Your task to perform on an android device: Is it going to rain tomorrow? Image 0: 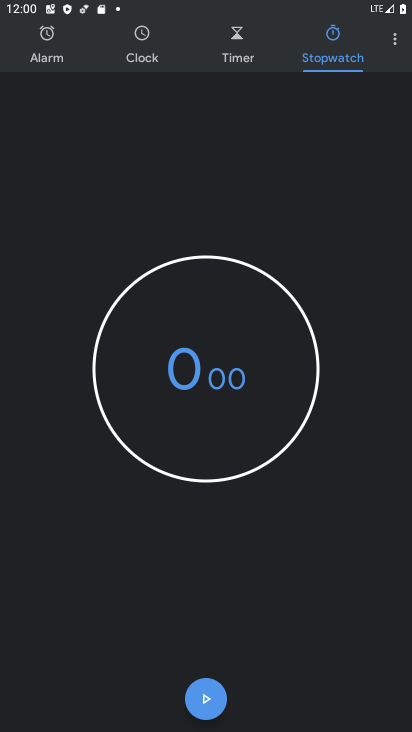
Step 0: press home button
Your task to perform on an android device: Is it going to rain tomorrow? Image 1: 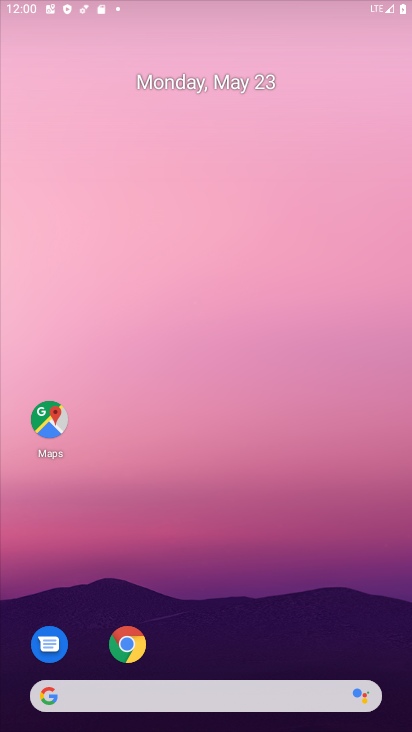
Step 1: drag from (368, 628) to (309, 51)
Your task to perform on an android device: Is it going to rain tomorrow? Image 2: 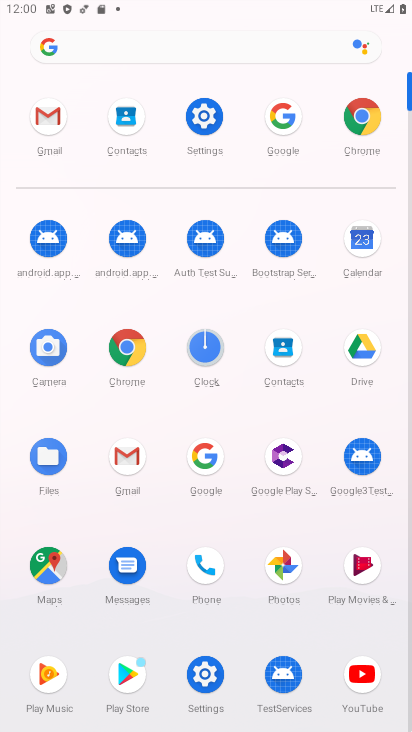
Step 2: click (203, 440)
Your task to perform on an android device: Is it going to rain tomorrow? Image 3: 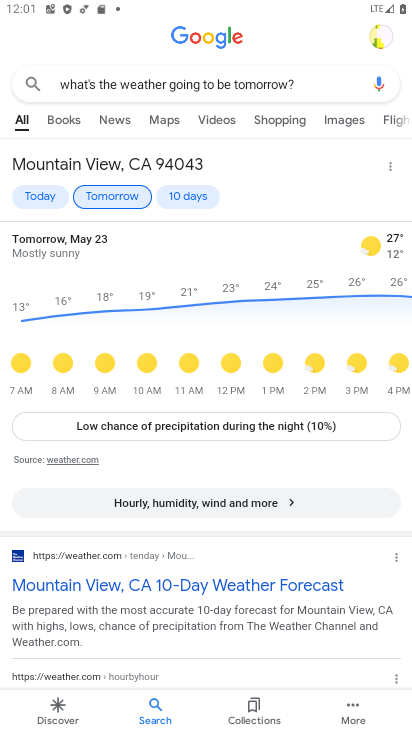
Step 3: press back button
Your task to perform on an android device: Is it going to rain tomorrow? Image 4: 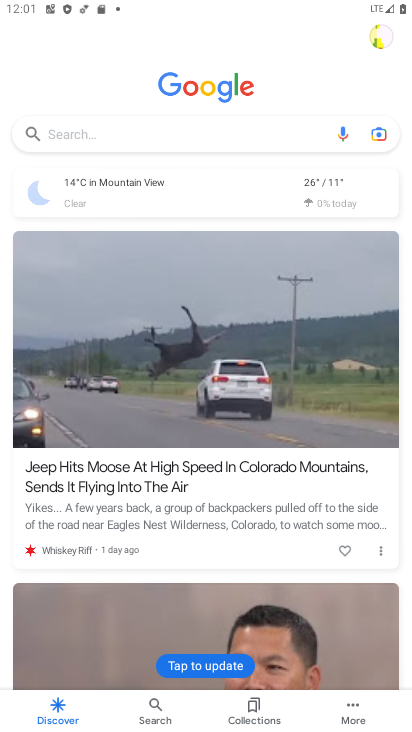
Step 4: click (93, 136)
Your task to perform on an android device: Is it going to rain tomorrow? Image 5: 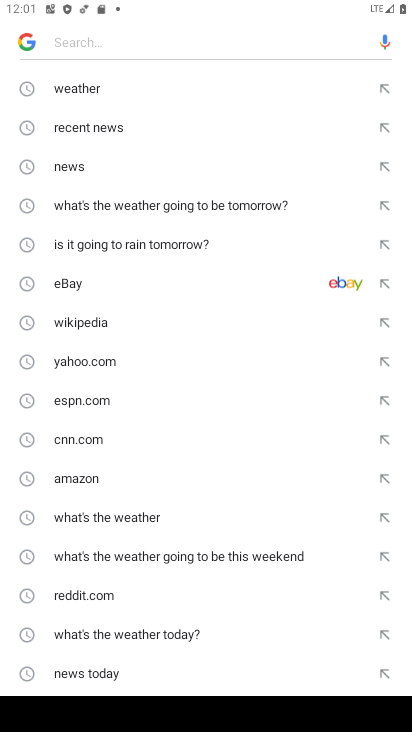
Step 5: click (162, 249)
Your task to perform on an android device: Is it going to rain tomorrow? Image 6: 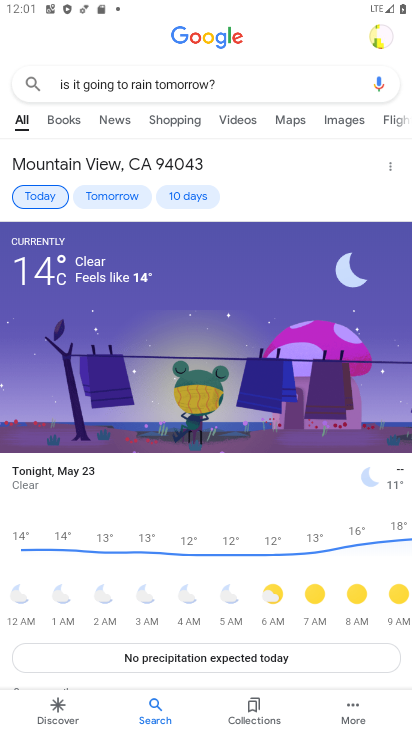
Step 6: click (119, 185)
Your task to perform on an android device: Is it going to rain tomorrow? Image 7: 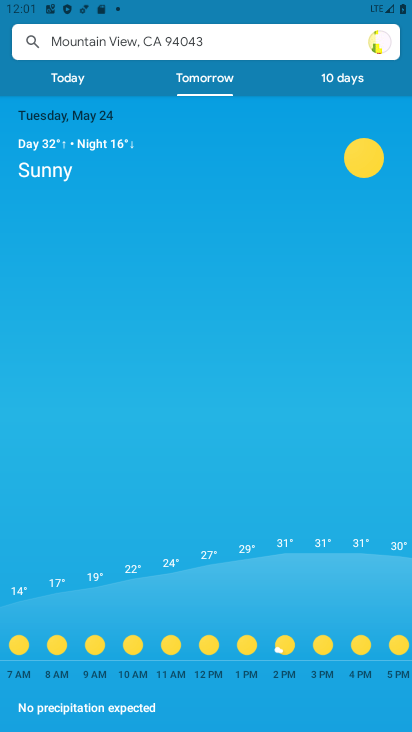
Step 7: task complete